Your task to perform on an android device: Search for the best selling book on Amazon. Image 0: 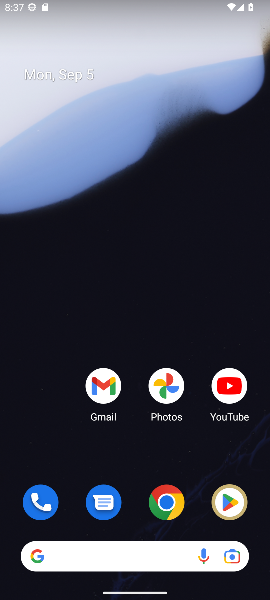
Step 0: click (113, 49)
Your task to perform on an android device: Search for the best selling book on Amazon. Image 1: 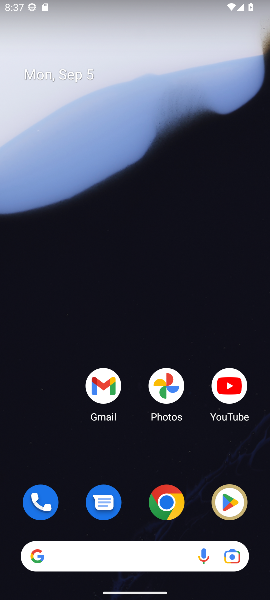
Step 1: drag from (178, 369) to (98, 5)
Your task to perform on an android device: Search for the best selling book on Amazon. Image 2: 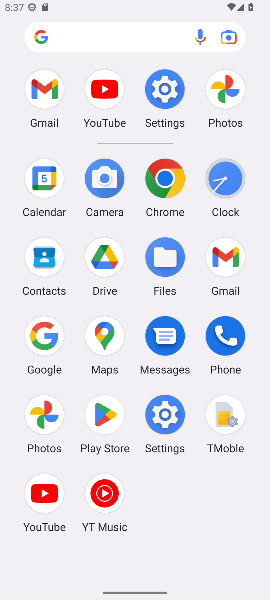
Step 2: click (40, 334)
Your task to perform on an android device: Search for the best selling book on Amazon. Image 3: 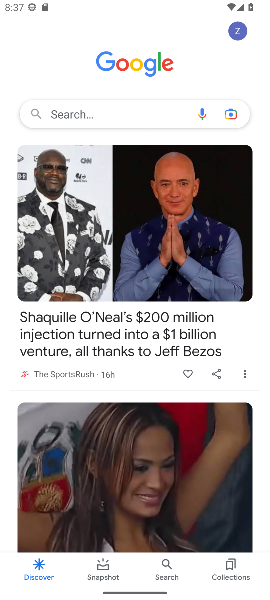
Step 3: click (101, 111)
Your task to perform on an android device: Search for the best selling book on Amazon. Image 4: 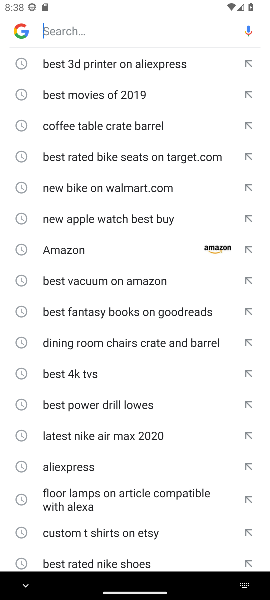
Step 4: type "best selling book on Amazon"
Your task to perform on an android device: Search for the best selling book on Amazon. Image 5: 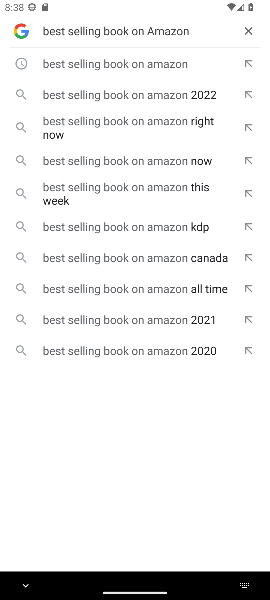
Step 5: click (83, 62)
Your task to perform on an android device: Search for the best selling book on Amazon. Image 6: 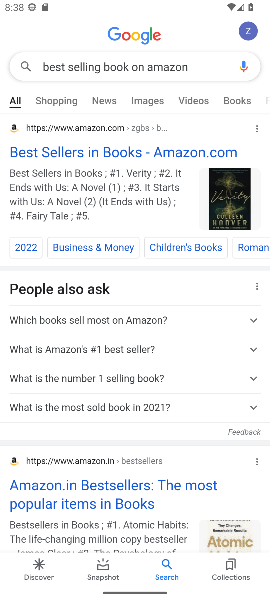
Step 6: task complete